Your task to perform on an android device: Is it going to rain today? Image 0: 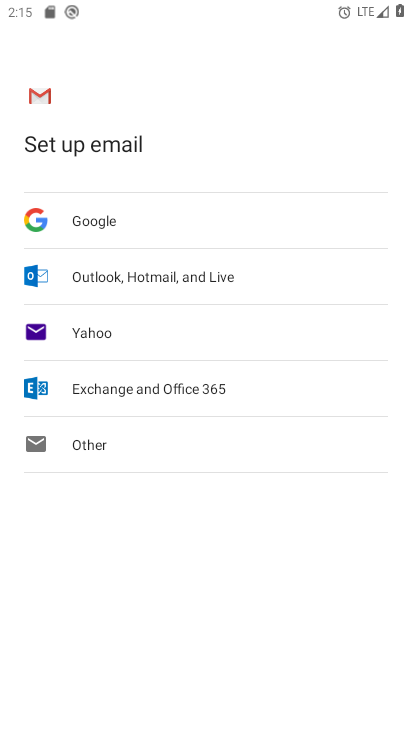
Step 0: press home button
Your task to perform on an android device: Is it going to rain today? Image 1: 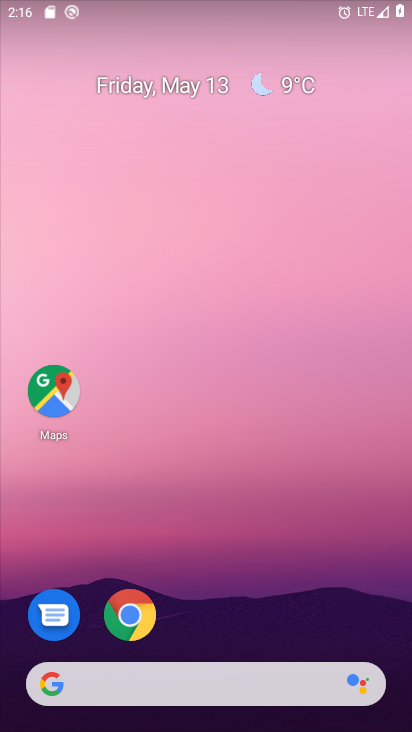
Step 1: click (290, 84)
Your task to perform on an android device: Is it going to rain today? Image 2: 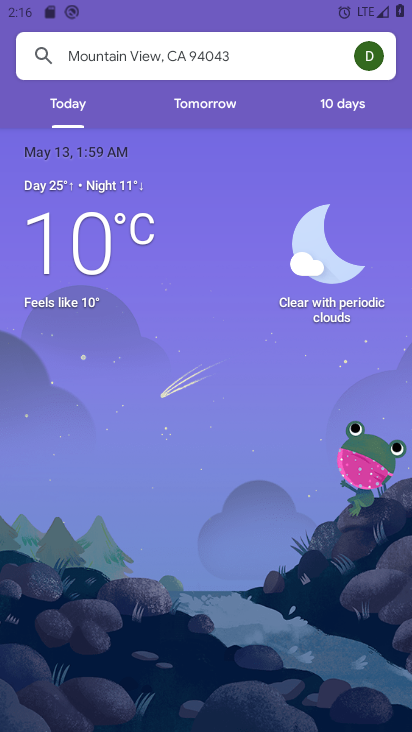
Step 2: task complete